Your task to perform on an android device: open a new tab in the chrome app Image 0: 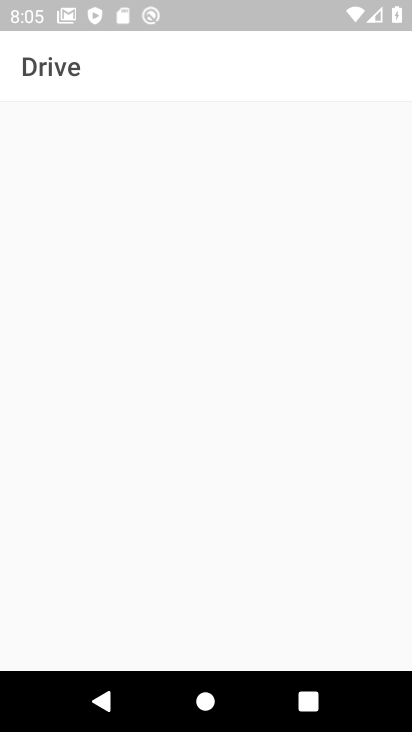
Step 0: press home button
Your task to perform on an android device: open a new tab in the chrome app Image 1: 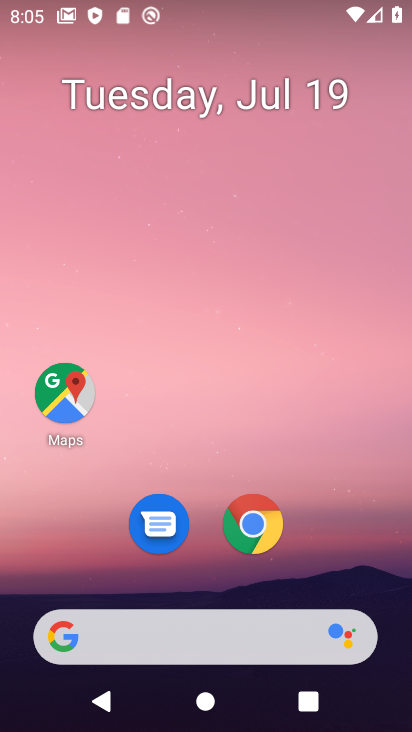
Step 1: click (250, 526)
Your task to perform on an android device: open a new tab in the chrome app Image 2: 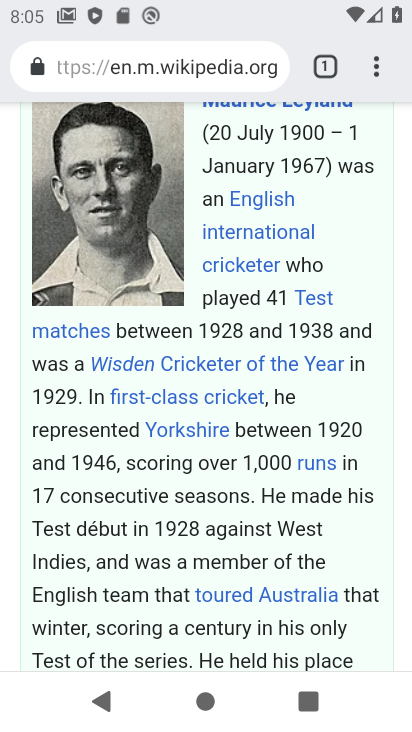
Step 2: task complete